Your task to perform on an android device: What is the recent news? Image 0: 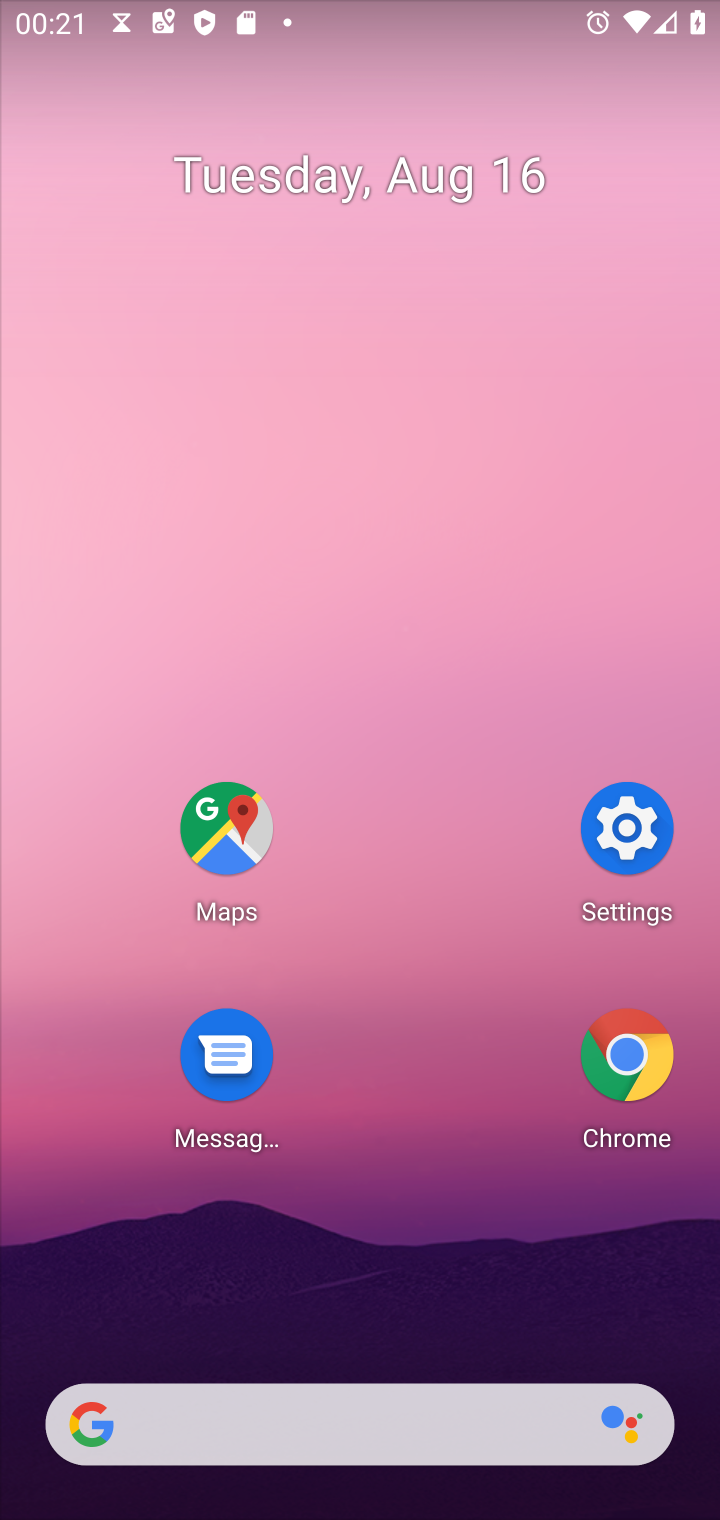
Step 0: press home button
Your task to perform on an android device: What is the recent news? Image 1: 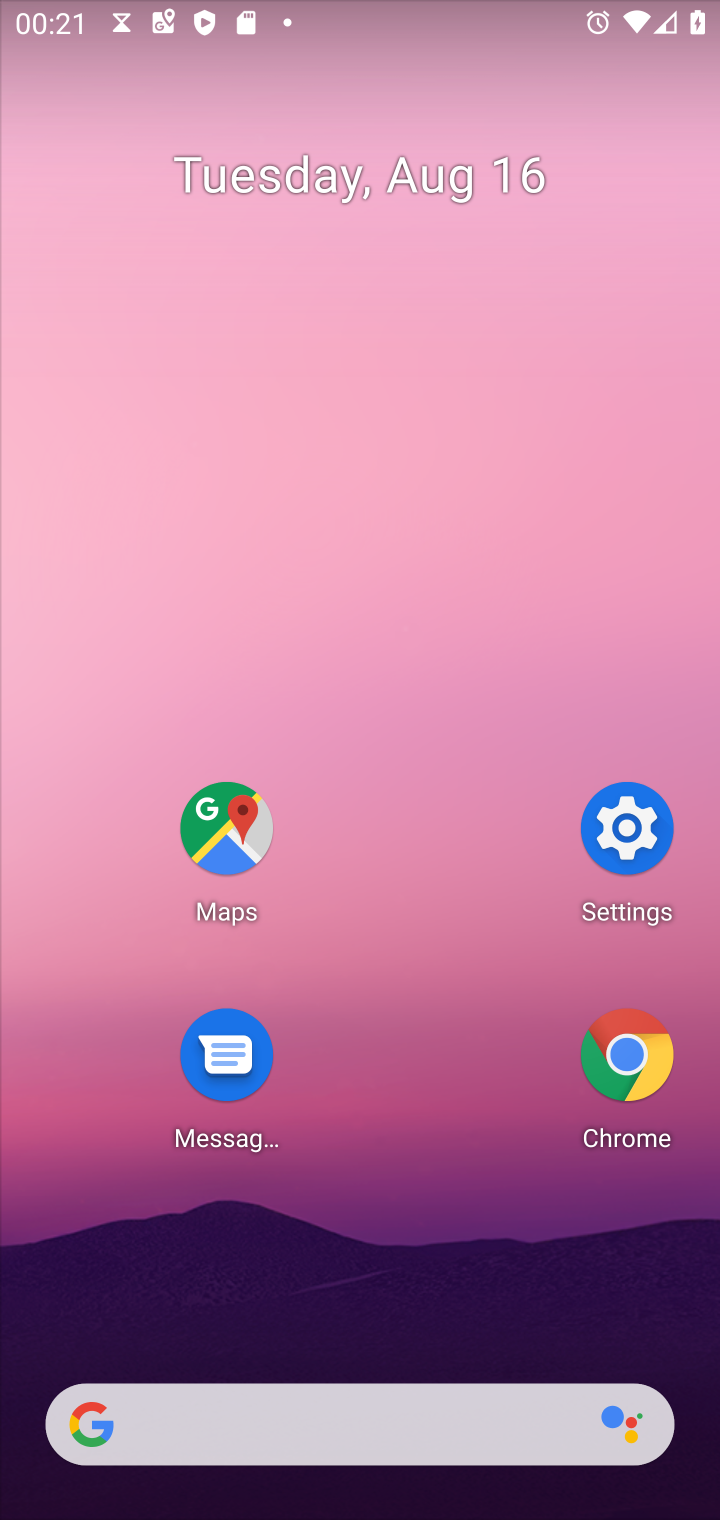
Step 1: click (213, 1415)
Your task to perform on an android device: What is the recent news? Image 2: 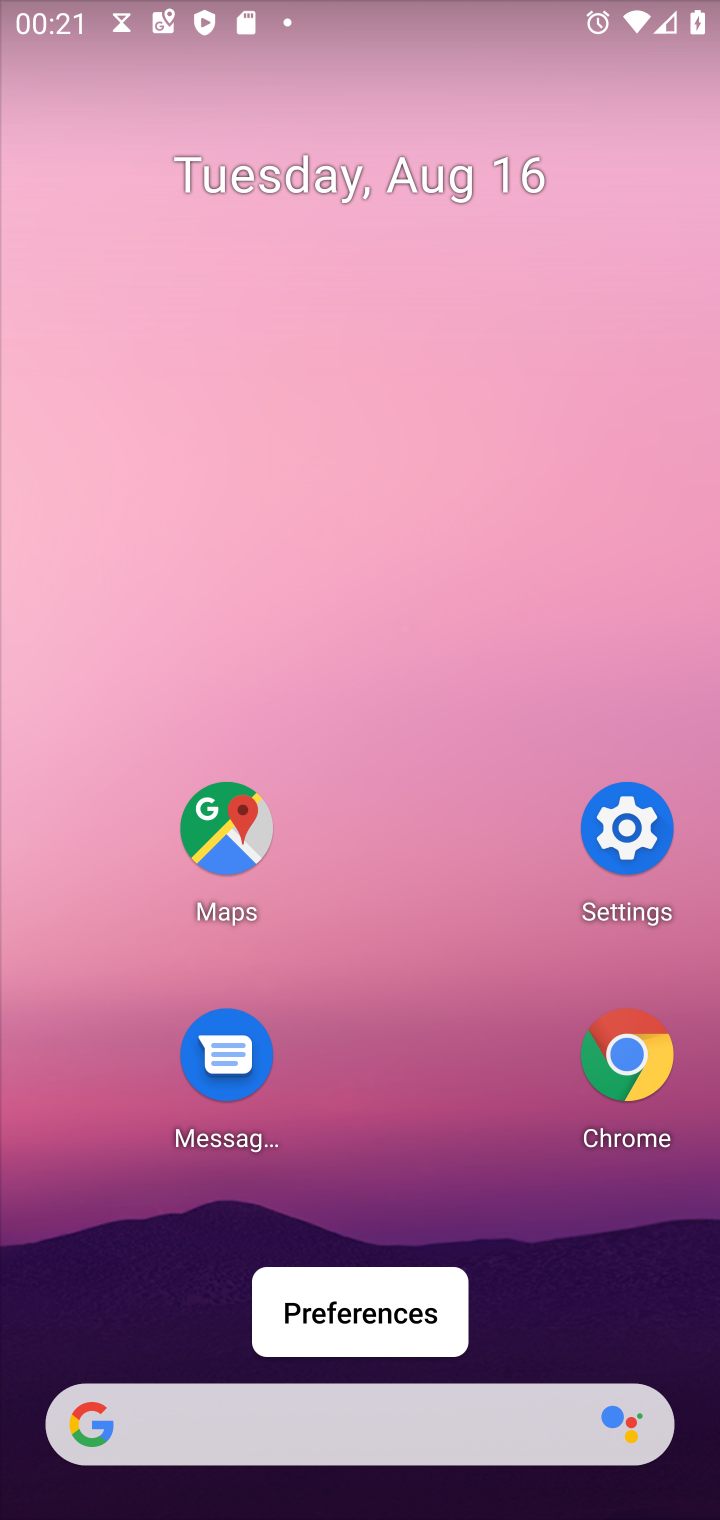
Step 2: click (242, 1421)
Your task to perform on an android device: What is the recent news? Image 3: 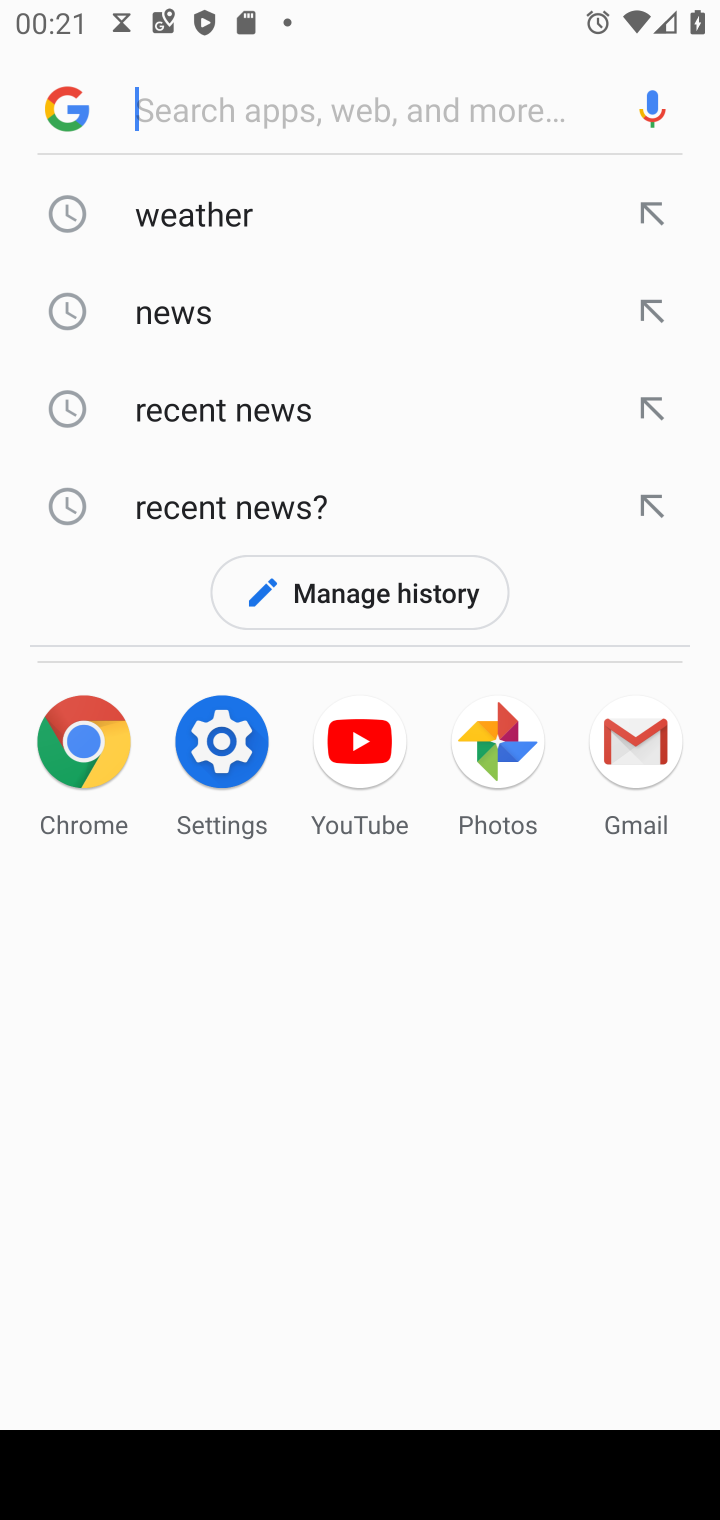
Step 3: click (159, 409)
Your task to perform on an android device: What is the recent news? Image 4: 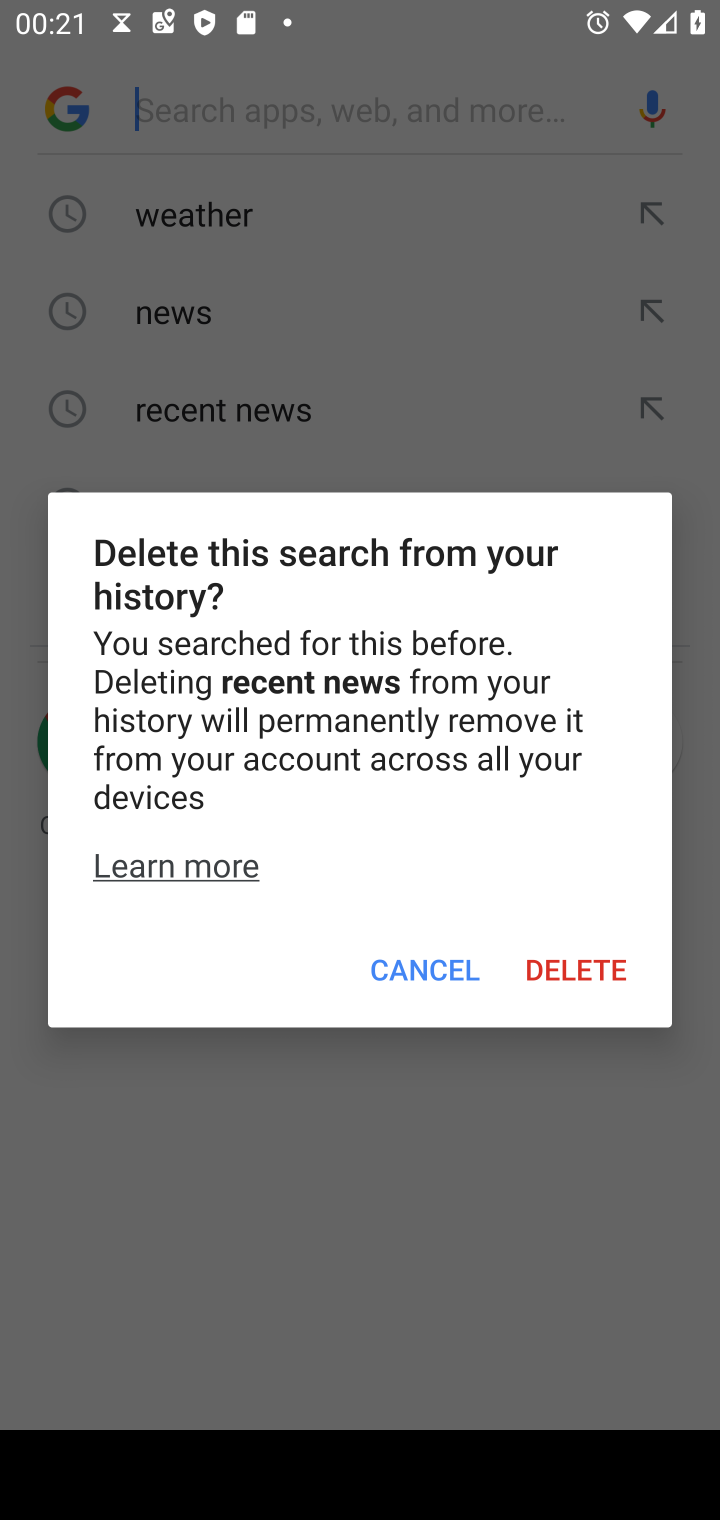
Step 4: click (425, 981)
Your task to perform on an android device: What is the recent news? Image 5: 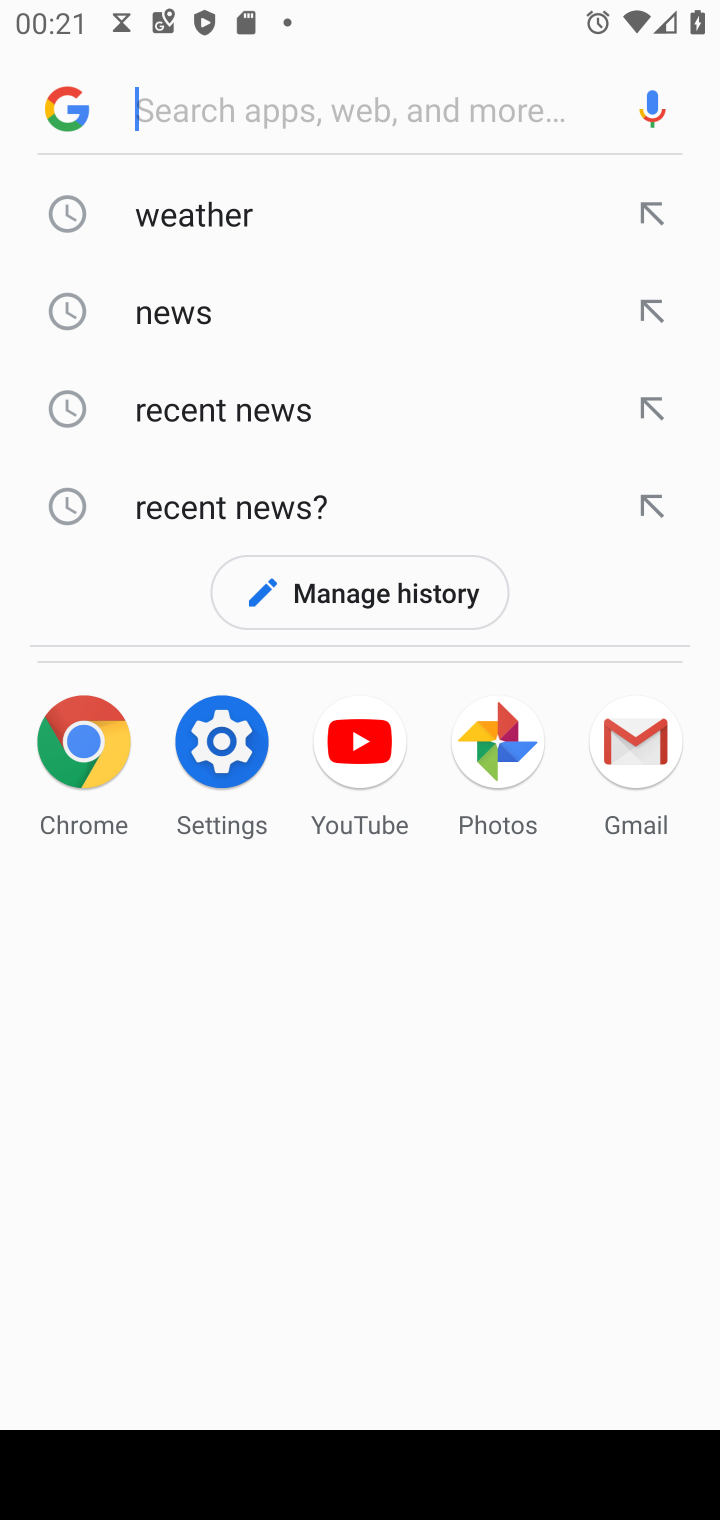
Step 5: click (314, 408)
Your task to perform on an android device: What is the recent news? Image 6: 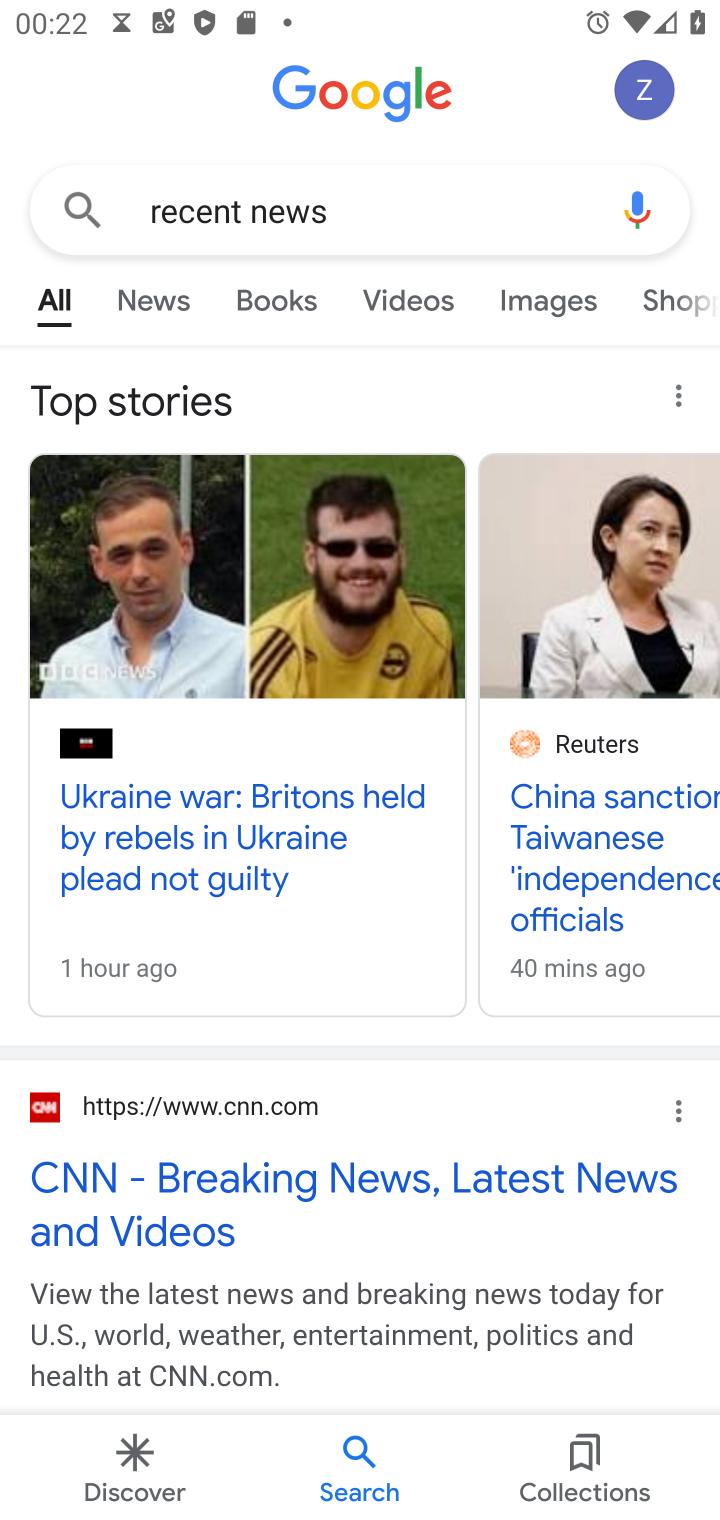
Step 6: click (168, 299)
Your task to perform on an android device: What is the recent news? Image 7: 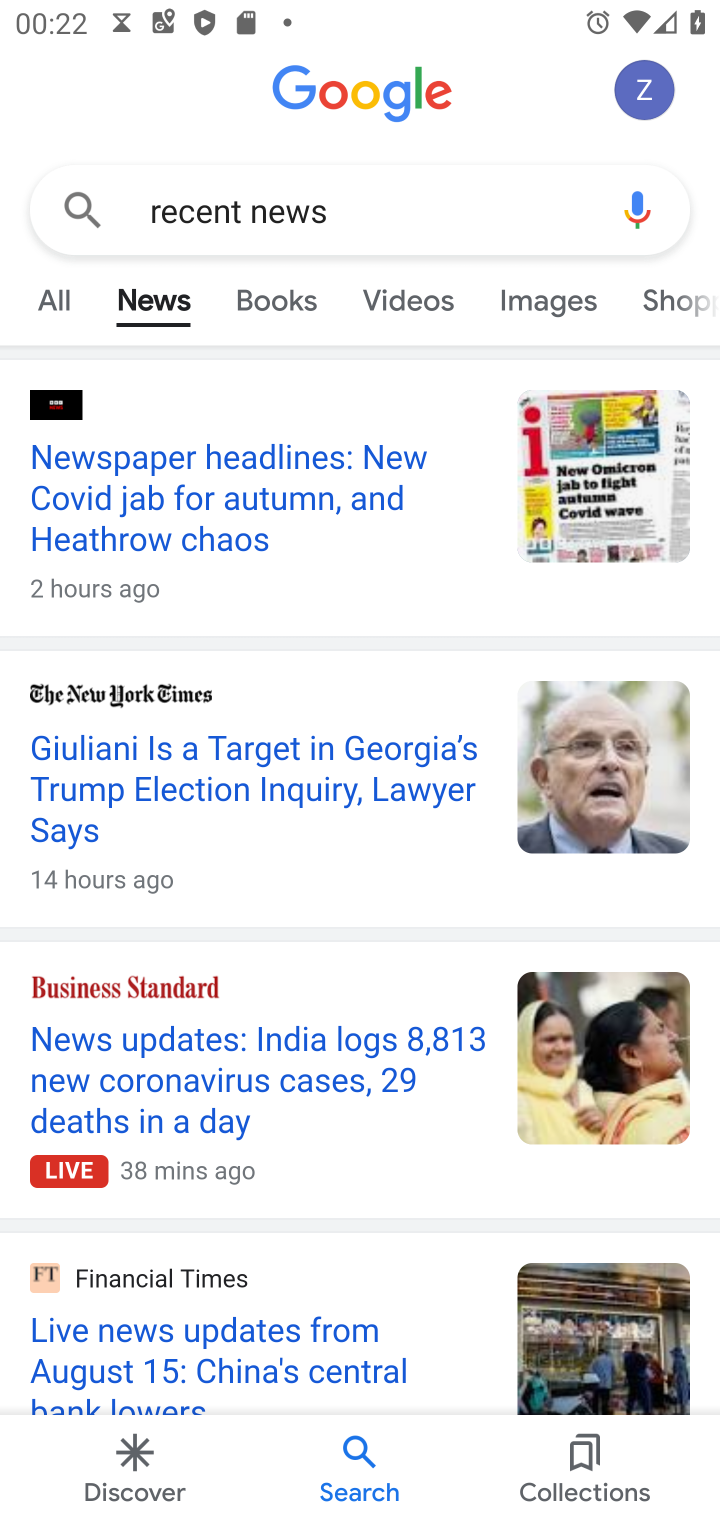
Step 7: task complete